Your task to perform on an android device: Open Google Maps Image 0: 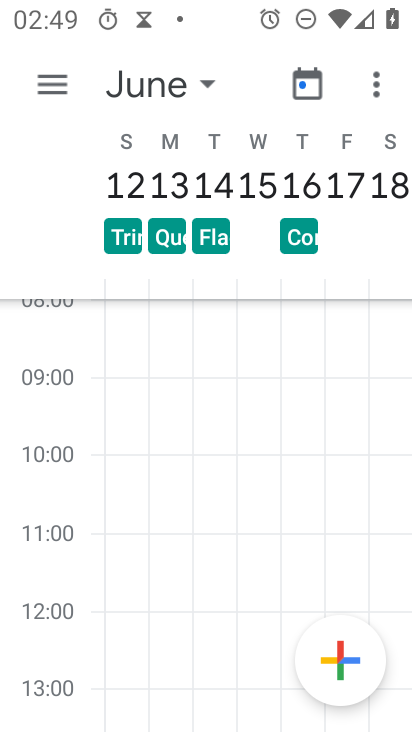
Step 0: press home button
Your task to perform on an android device: Open Google Maps Image 1: 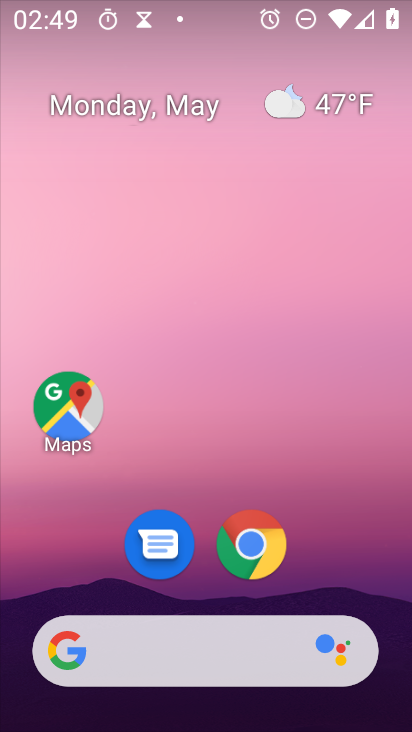
Step 1: drag from (275, 643) to (330, 44)
Your task to perform on an android device: Open Google Maps Image 2: 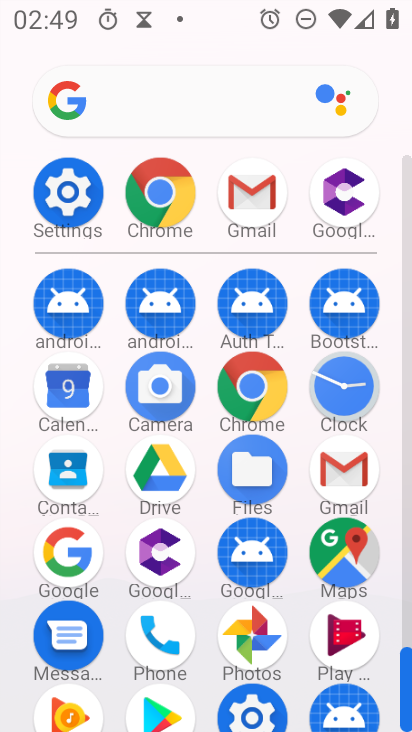
Step 2: click (332, 572)
Your task to perform on an android device: Open Google Maps Image 3: 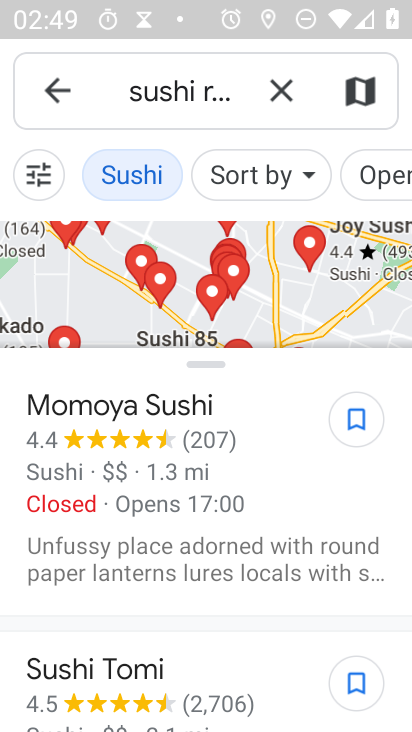
Step 3: task complete